Your task to perform on an android device: Open Google Maps Image 0: 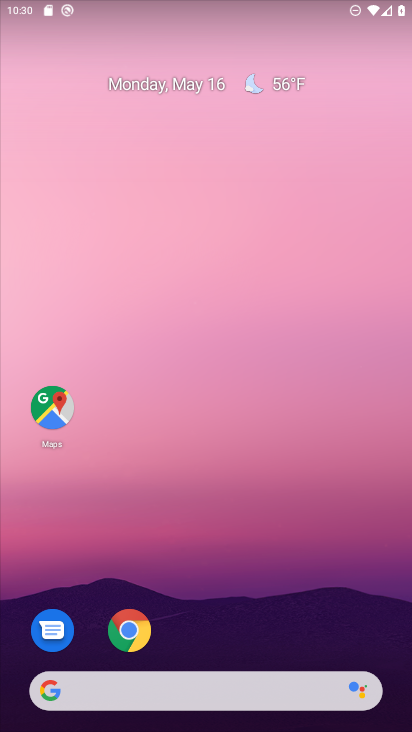
Step 0: drag from (229, 649) to (239, 20)
Your task to perform on an android device: Open Google Maps Image 1: 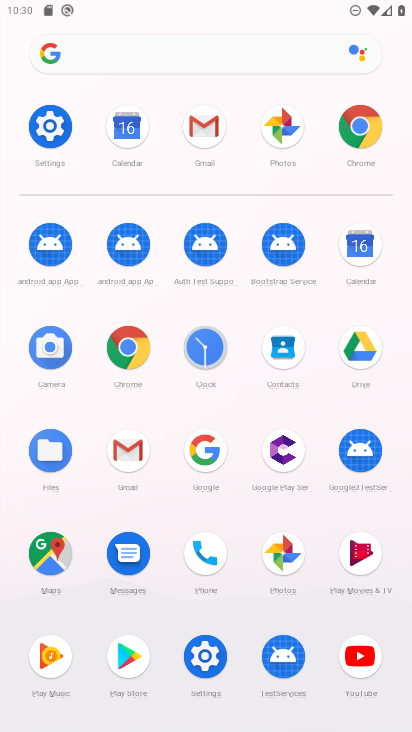
Step 1: click (55, 554)
Your task to perform on an android device: Open Google Maps Image 2: 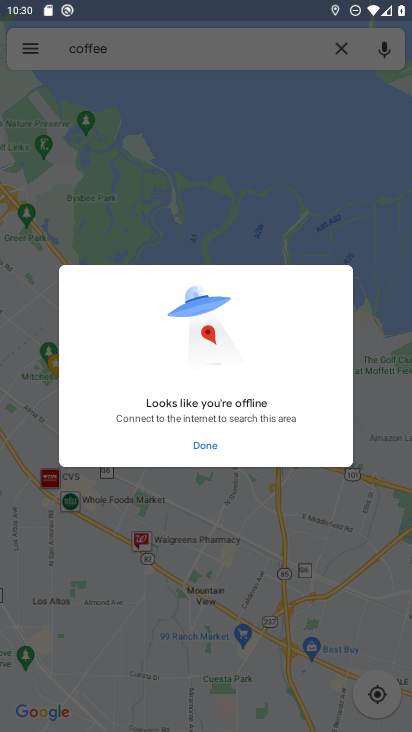
Step 2: click (182, 449)
Your task to perform on an android device: Open Google Maps Image 3: 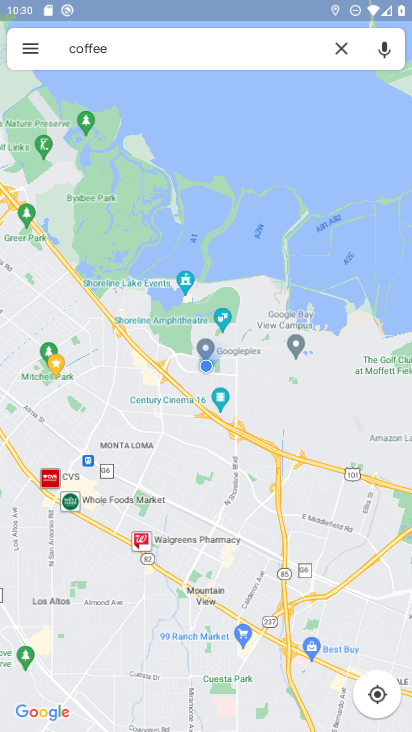
Step 3: task complete